Your task to perform on an android device: Open Chrome and go to settings Image 0: 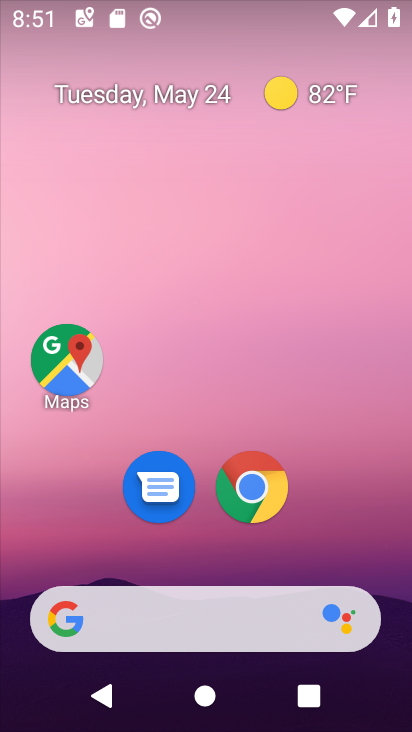
Step 0: drag from (343, 515) to (315, 150)
Your task to perform on an android device: Open Chrome and go to settings Image 1: 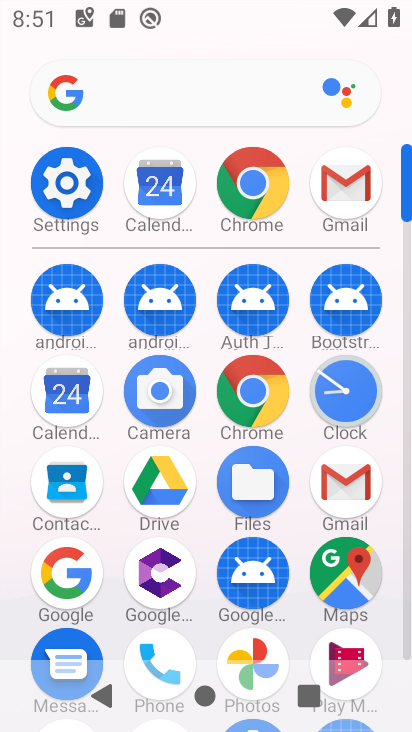
Step 1: click (267, 387)
Your task to perform on an android device: Open Chrome and go to settings Image 2: 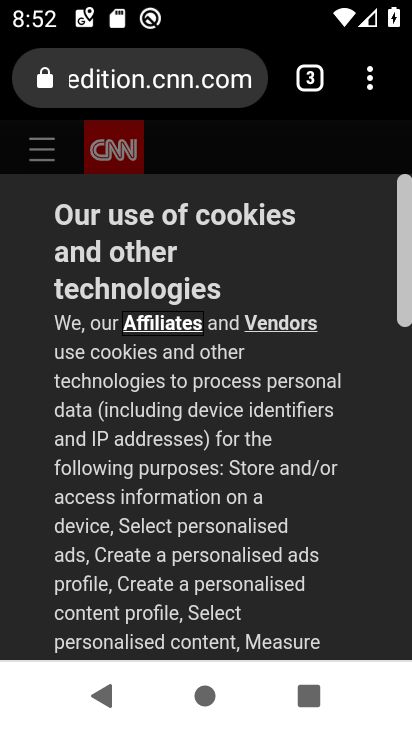
Step 2: task complete